Your task to perform on an android device: open chrome privacy settings Image 0: 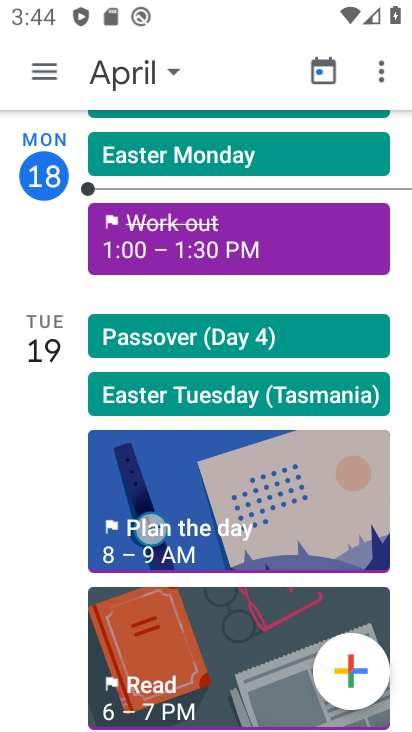
Step 0: press home button
Your task to perform on an android device: open chrome privacy settings Image 1: 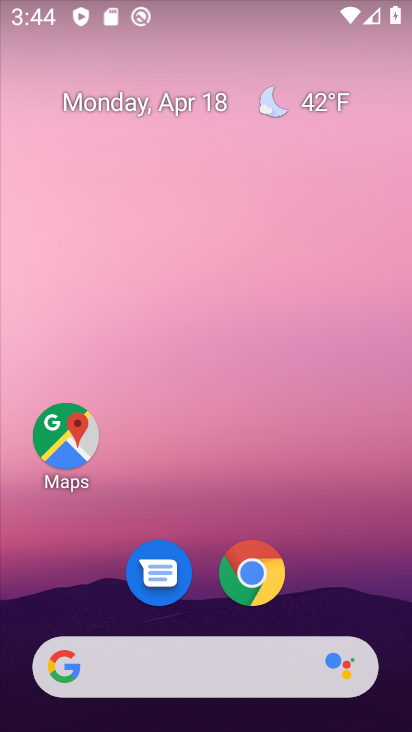
Step 1: click (258, 570)
Your task to perform on an android device: open chrome privacy settings Image 2: 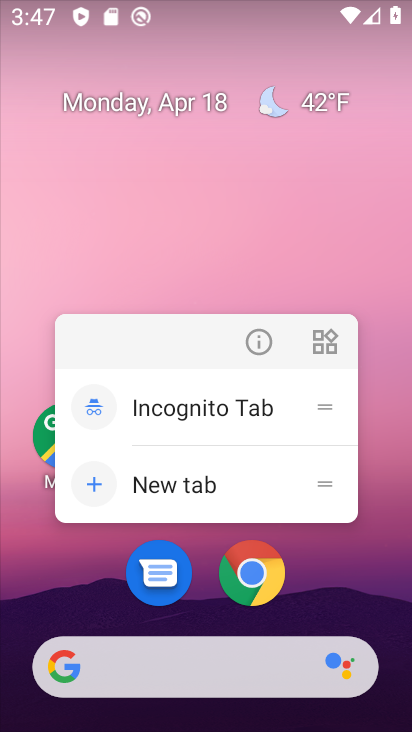
Step 2: click (252, 569)
Your task to perform on an android device: open chrome privacy settings Image 3: 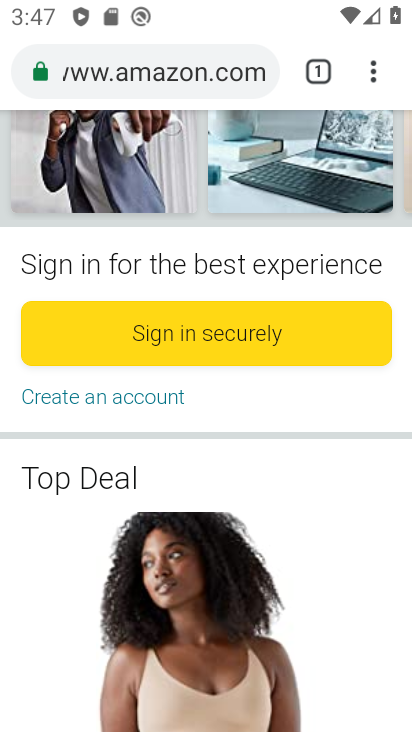
Step 3: click (324, 68)
Your task to perform on an android device: open chrome privacy settings Image 4: 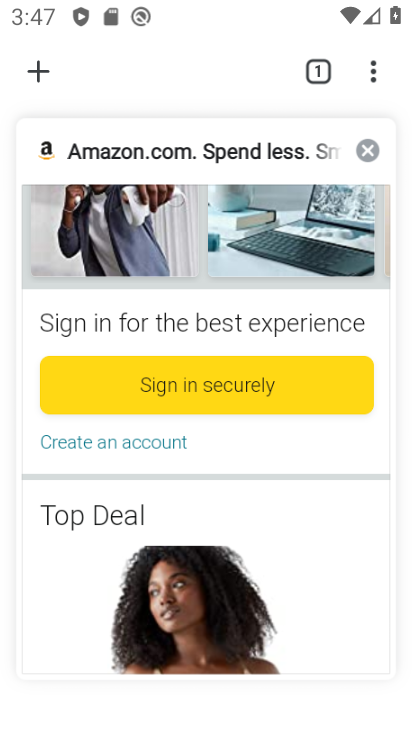
Step 4: click (375, 147)
Your task to perform on an android device: open chrome privacy settings Image 5: 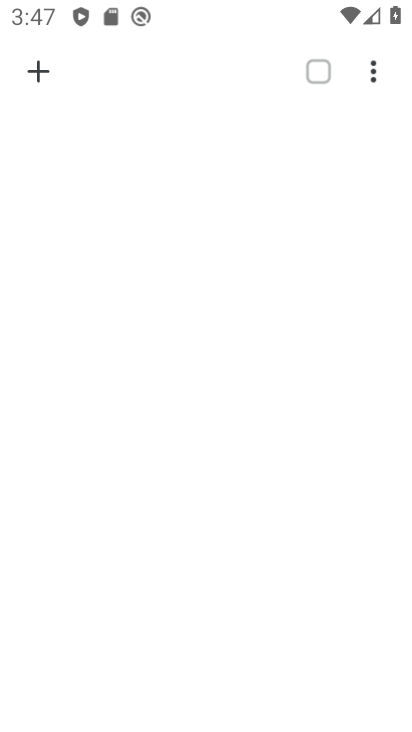
Step 5: click (41, 70)
Your task to perform on an android device: open chrome privacy settings Image 6: 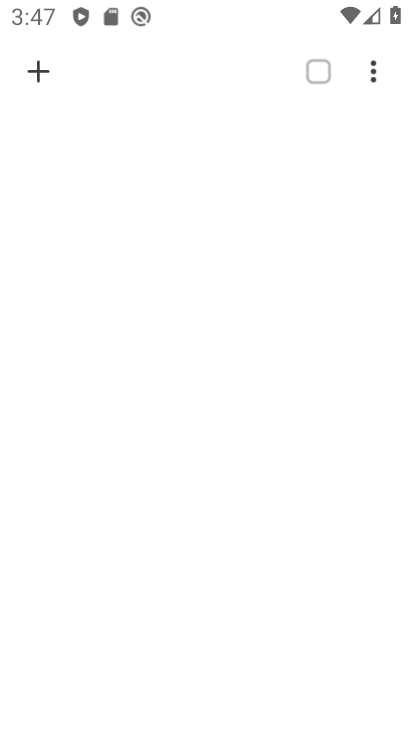
Step 6: click (36, 81)
Your task to perform on an android device: open chrome privacy settings Image 7: 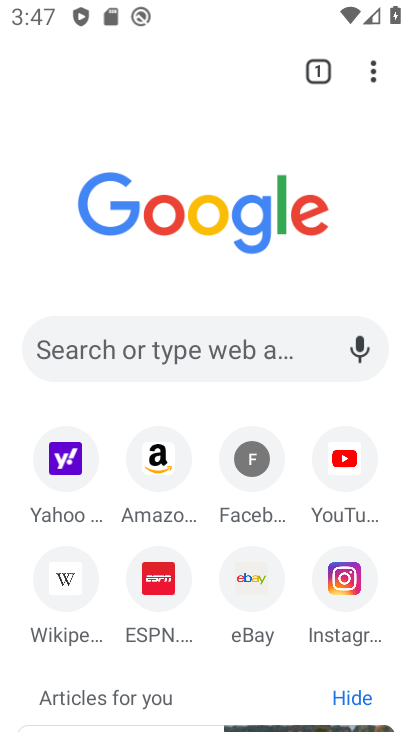
Step 7: click (369, 66)
Your task to perform on an android device: open chrome privacy settings Image 8: 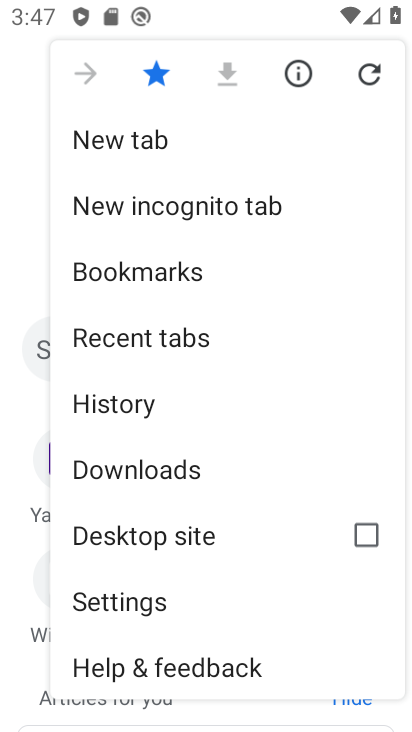
Step 8: click (145, 598)
Your task to perform on an android device: open chrome privacy settings Image 9: 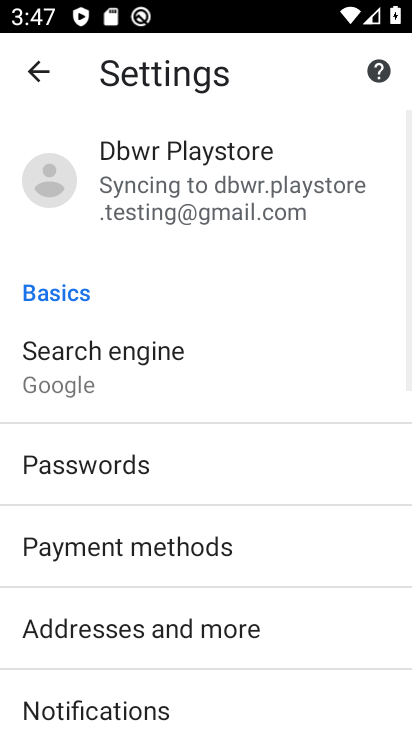
Step 9: drag from (125, 708) to (93, 351)
Your task to perform on an android device: open chrome privacy settings Image 10: 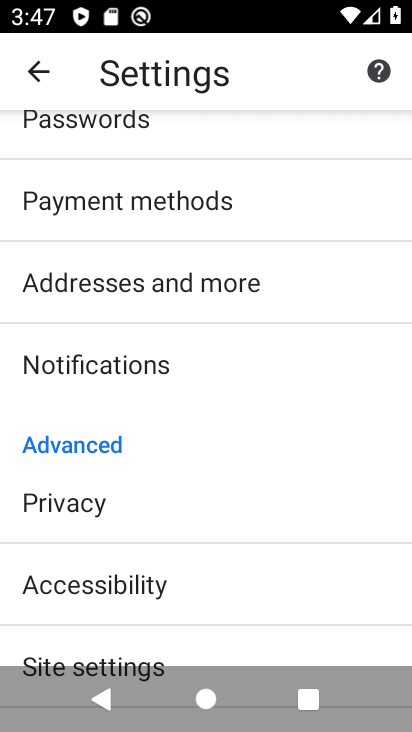
Step 10: click (64, 516)
Your task to perform on an android device: open chrome privacy settings Image 11: 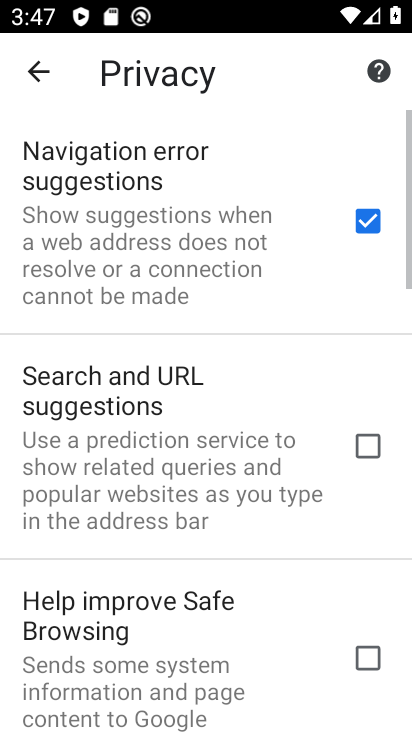
Step 11: task complete